Your task to perform on an android device: delete the emails in spam in the gmail app Image 0: 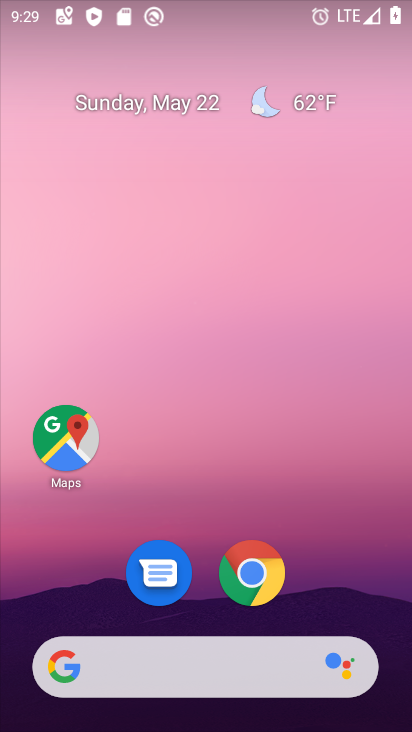
Step 0: drag from (226, 690) to (202, 106)
Your task to perform on an android device: delete the emails in spam in the gmail app Image 1: 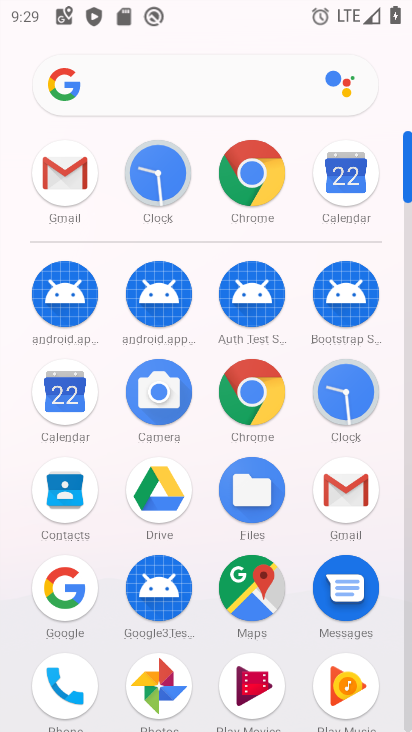
Step 1: click (329, 480)
Your task to perform on an android device: delete the emails in spam in the gmail app Image 2: 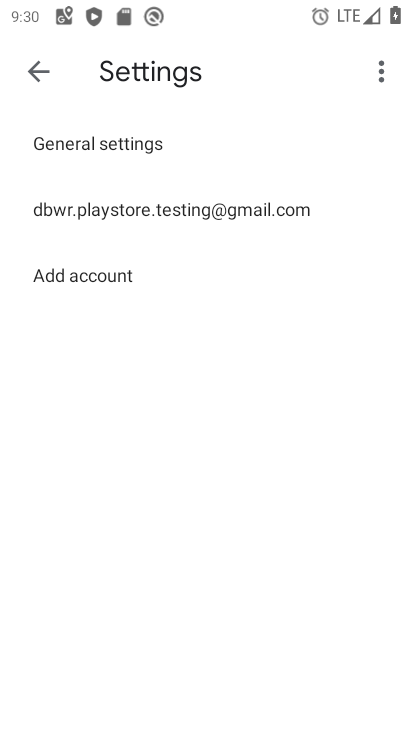
Step 2: press back button
Your task to perform on an android device: delete the emails in spam in the gmail app Image 3: 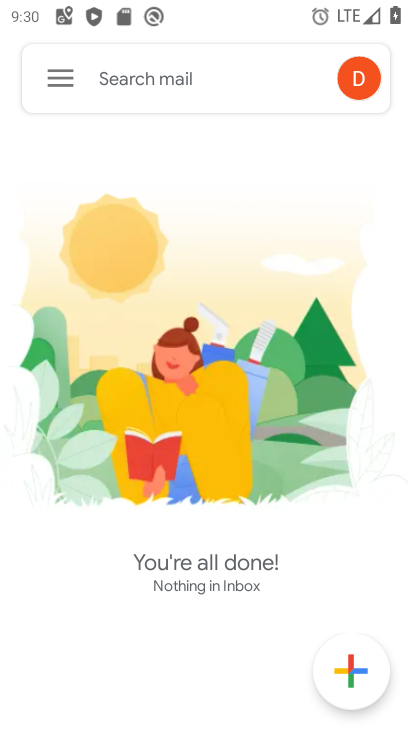
Step 3: click (58, 88)
Your task to perform on an android device: delete the emails in spam in the gmail app Image 4: 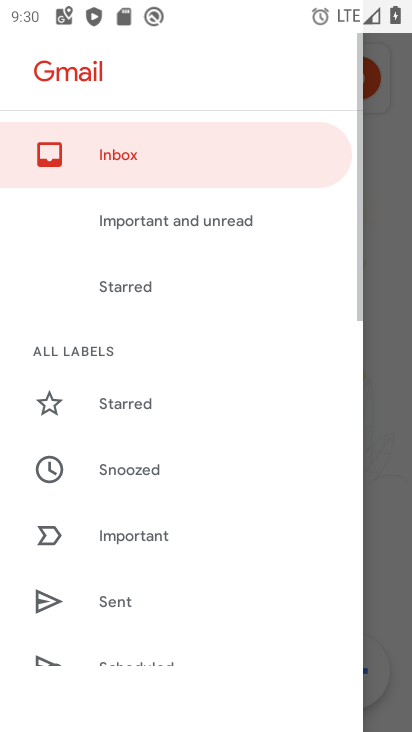
Step 4: drag from (162, 645) to (166, 113)
Your task to perform on an android device: delete the emails in spam in the gmail app Image 5: 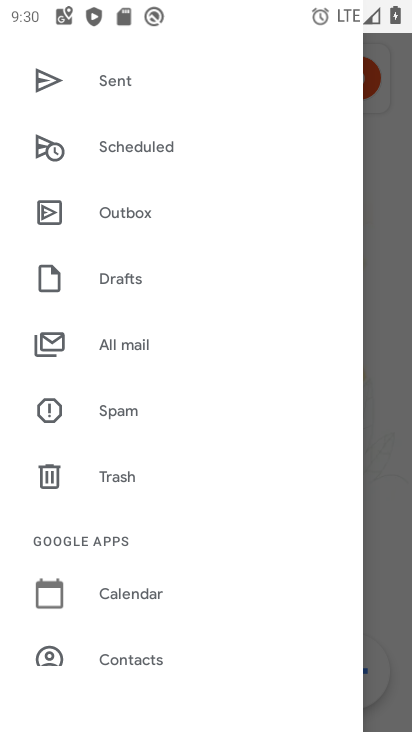
Step 5: click (149, 403)
Your task to perform on an android device: delete the emails in spam in the gmail app Image 6: 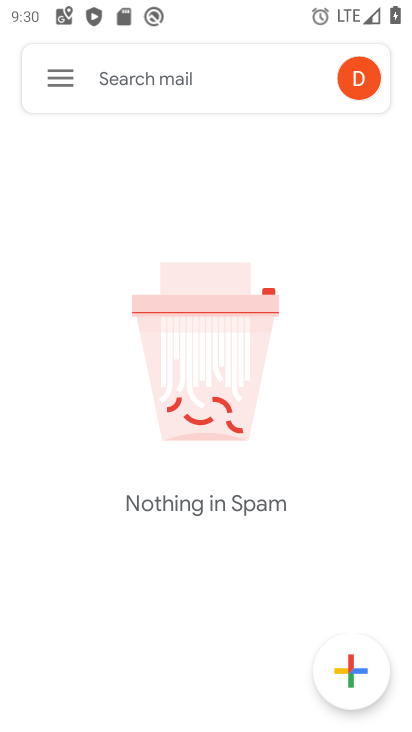
Step 6: task complete